Your task to perform on an android device: turn on priority inbox in the gmail app Image 0: 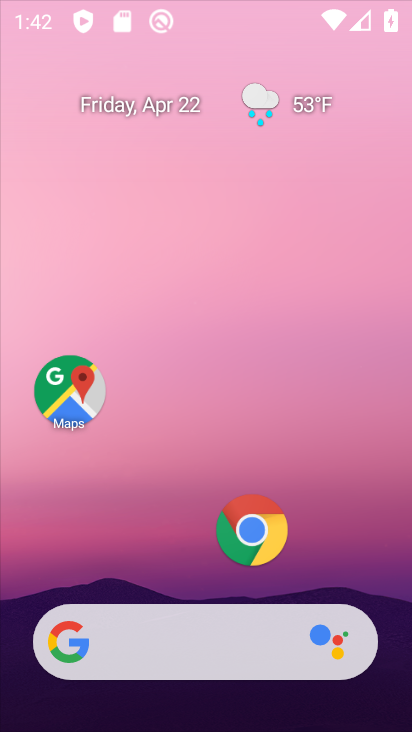
Step 0: drag from (230, 640) to (251, 237)
Your task to perform on an android device: turn on priority inbox in the gmail app Image 1: 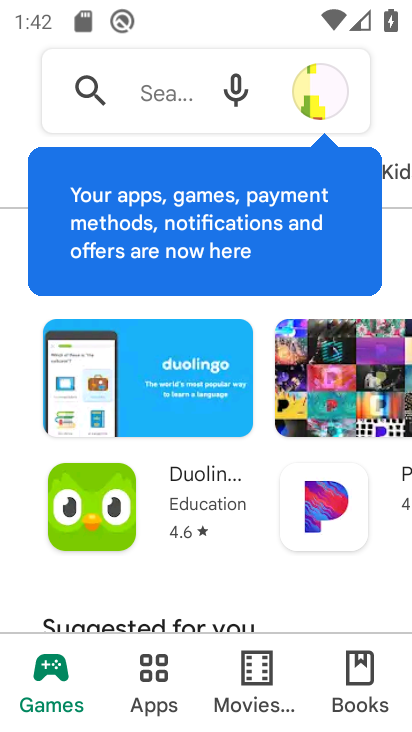
Step 1: press home button
Your task to perform on an android device: turn on priority inbox in the gmail app Image 2: 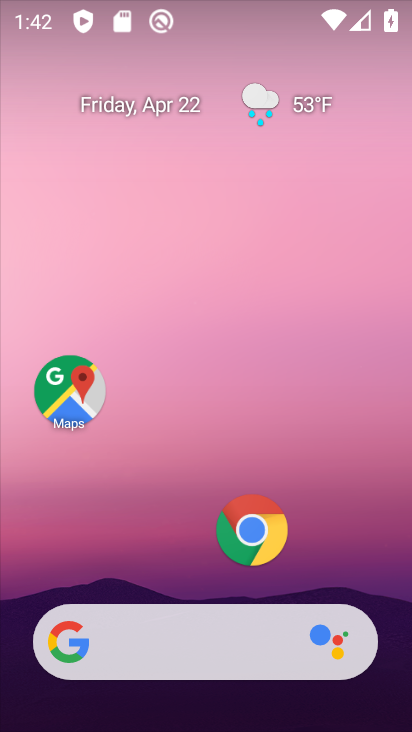
Step 2: drag from (166, 685) to (236, 148)
Your task to perform on an android device: turn on priority inbox in the gmail app Image 3: 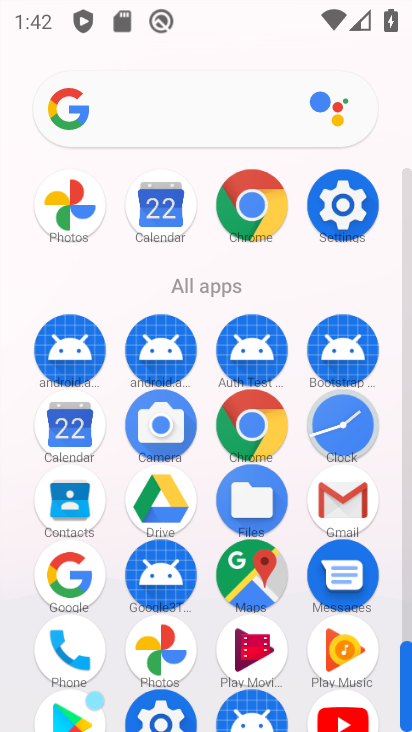
Step 3: click (361, 490)
Your task to perform on an android device: turn on priority inbox in the gmail app Image 4: 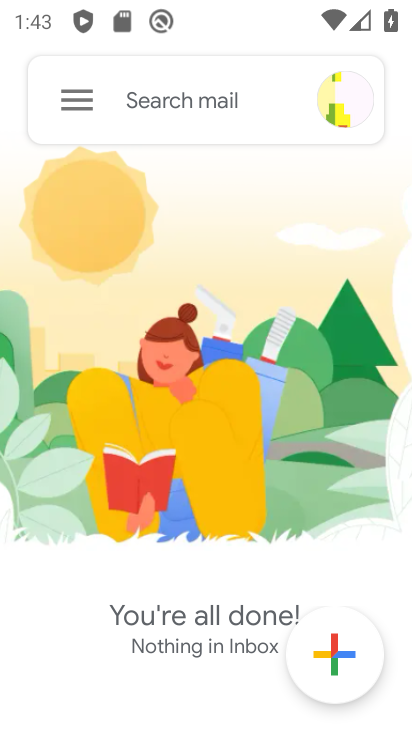
Step 4: click (79, 110)
Your task to perform on an android device: turn on priority inbox in the gmail app Image 5: 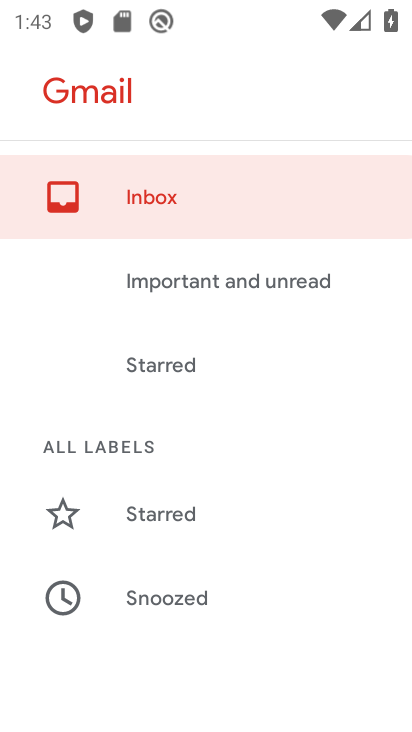
Step 5: drag from (196, 610) to (225, 112)
Your task to perform on an android device: turn on priority inbox in the gmail app Image 6: 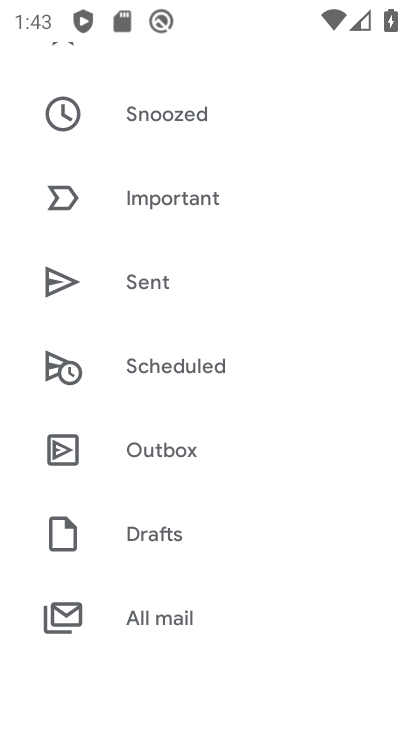
Step 6: drag from (169, 537) to (228, 28)
Your task to perform on an android device: turn on priority inbox in the gmail app Image 7: 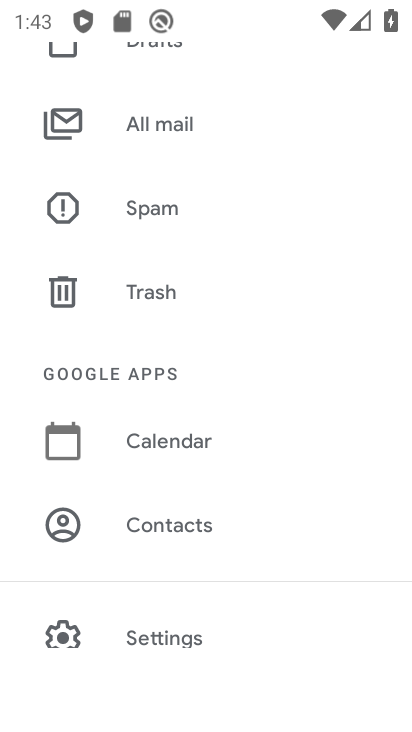
Step 7: click (147, 621)
Your task to perform on an android device: turn on priority inbox in the gmail app Image 8: 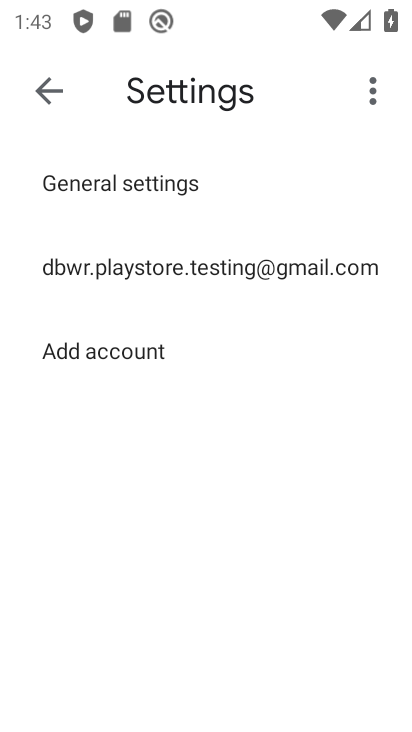
Step 8: click (175, 265)
Your task to perform on an android device: turn on priority inbox in the gmail app Image 9: 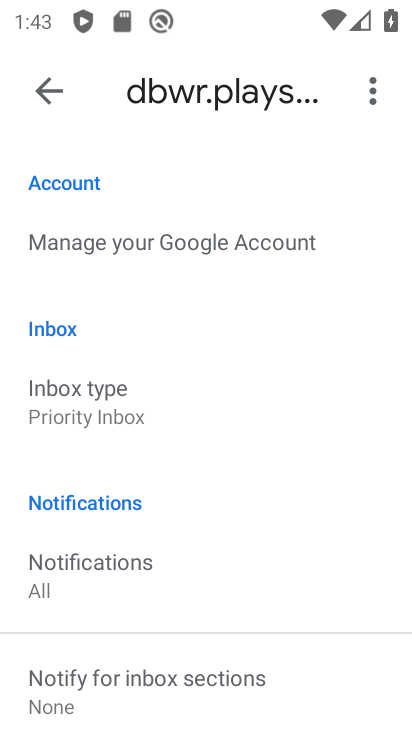
Step 9: click (133, 400)
Your task to perform on an android device: turn on priority inbox in the gmail app Image 10: 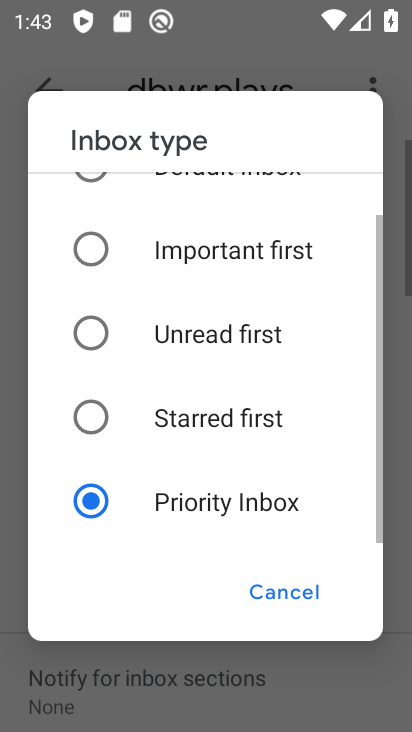
Step 10: click (217, 501)
Your task to perform on an android device: turn on priority inbox in the gmail app Image 11: 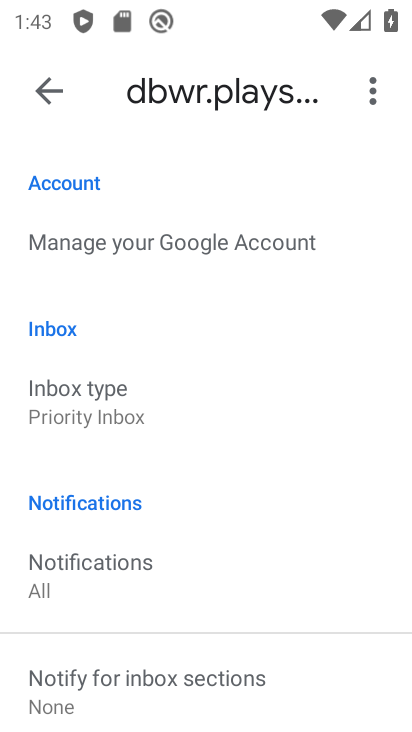
Step 11: task complete